Your task to perform on an android device: Show me the best basketball shoes on Nike.com Image 0: 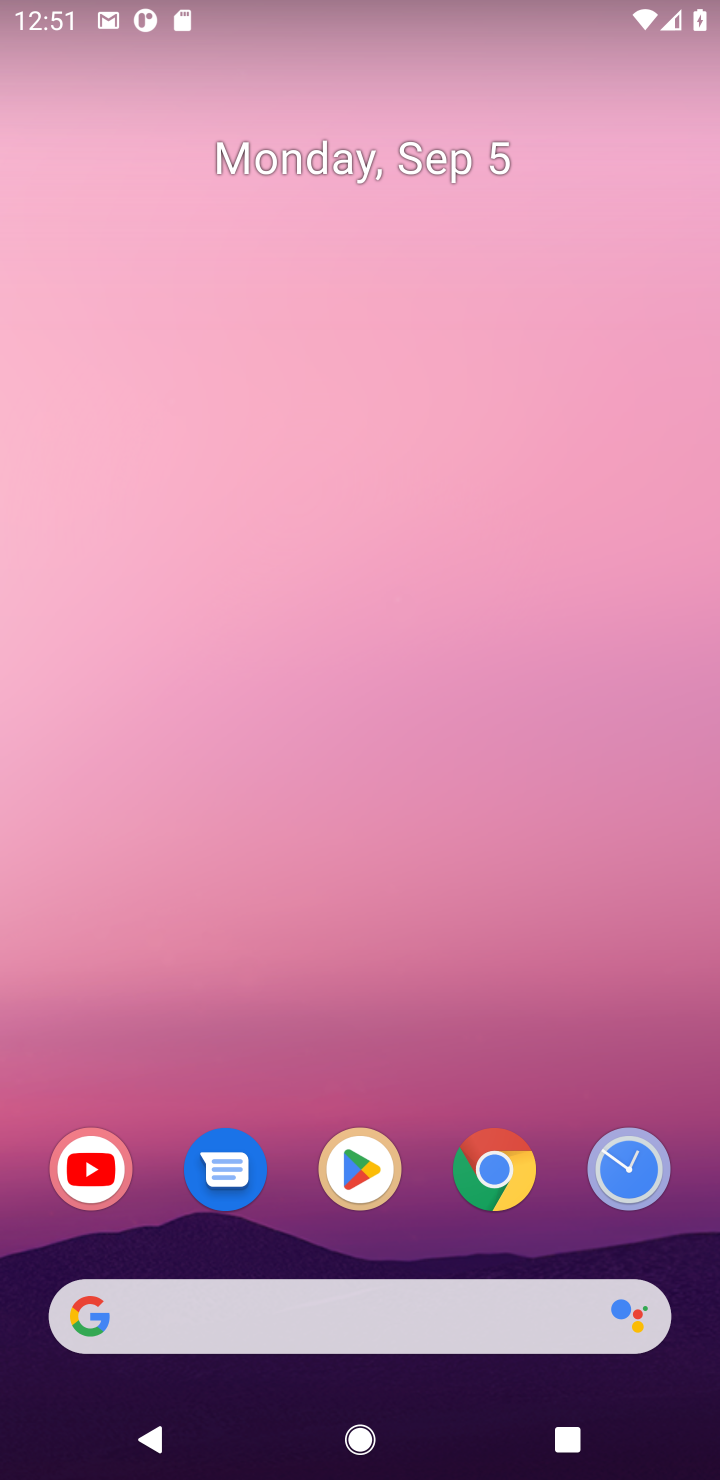
Step 0: click (60, 1184)
Your task to perform on an android device: Show me the best basketball shoes on Nike.com Image 1: 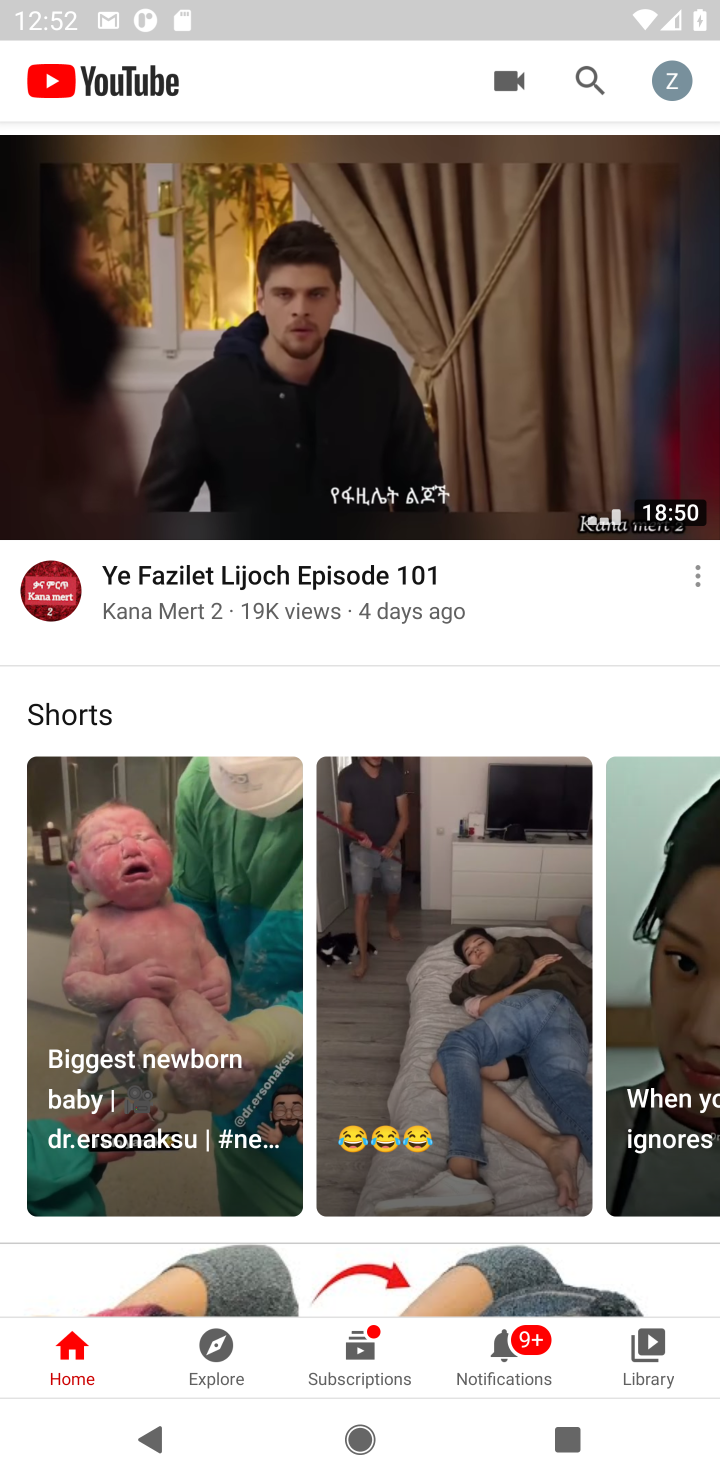
Step 1: task complete